Your task to perform on an android device: star an email in the gmail app Image 0: 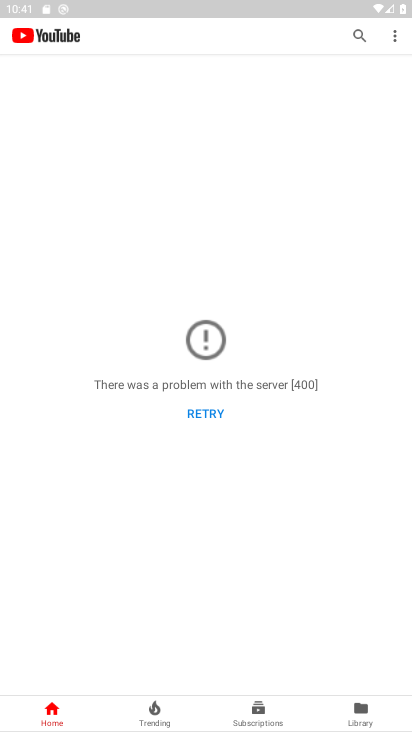
Step 0: press home button
Your task to perform on an android device: star an email in the gmail app Image 1: 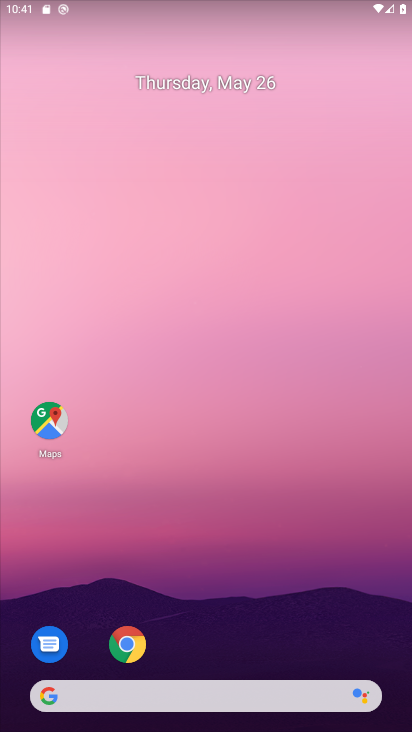
Step 1: drag from (347, 636) to (365, 215)
Your task to perform on an android device: star an email in the gmail app Image 2: 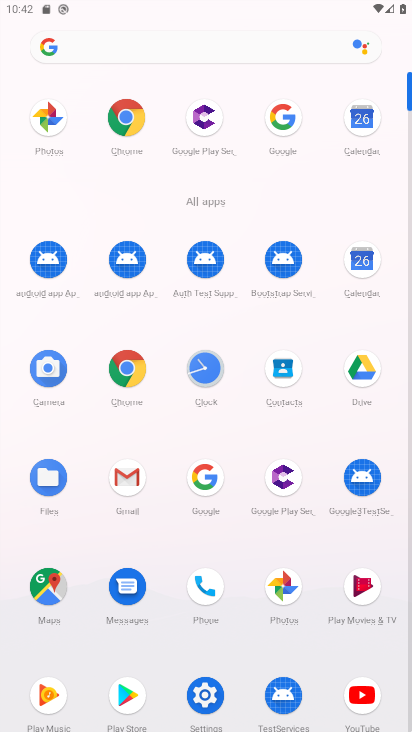
Step 2: click (136, 480)
Your task to perform on an android device: star an email in the gmail app Image 3: 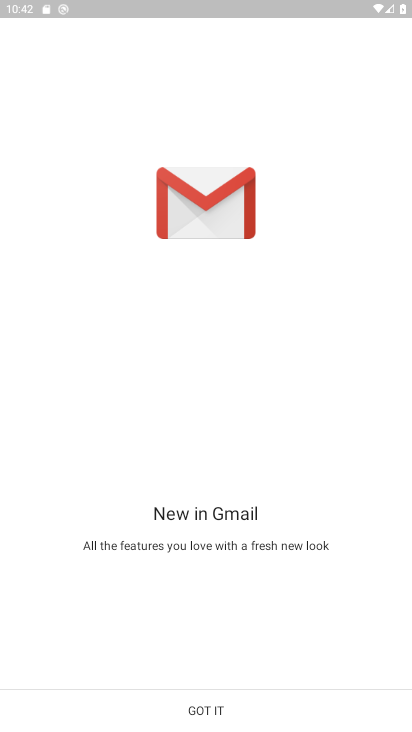
Step 3: click (221, 707)
Your task to perform on an android device: star an email in the gmail app Image 4: 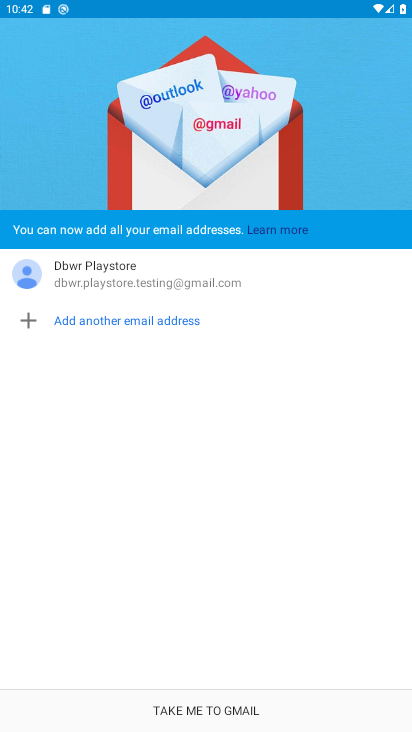
Step 4: click (221, 707)
Your task to perform on an android device: star an email in the gmail app Image 5: 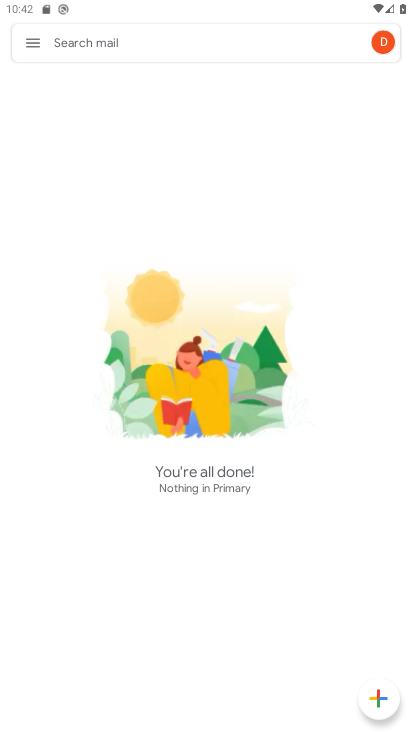
Step 5: task complete